Your task to perform on an android device: install app "Paramount+ | Peak Streaming" Image 0: 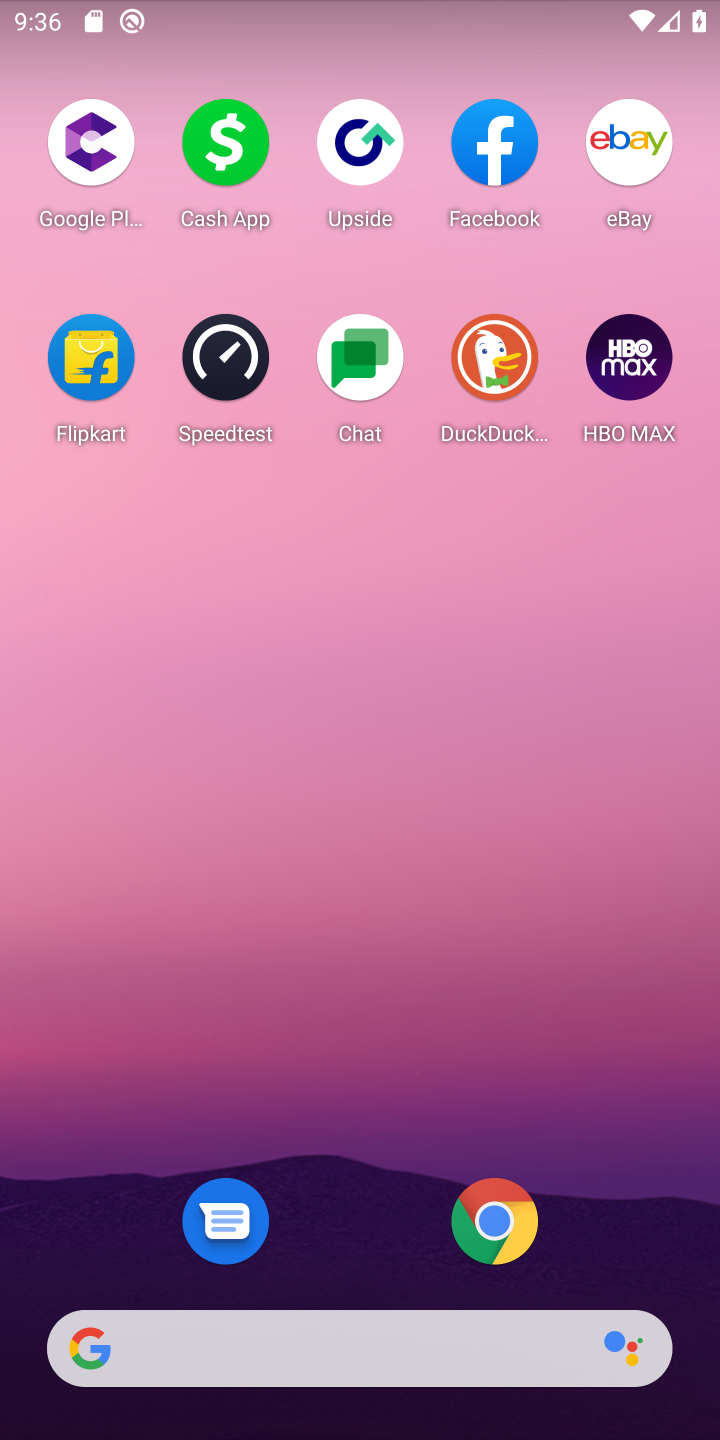
Step 0: drag from (368, 1139) to (364, 314)
Your task to perform on an android device: install app "Paramount+ | Peak Streaming" Image 1: 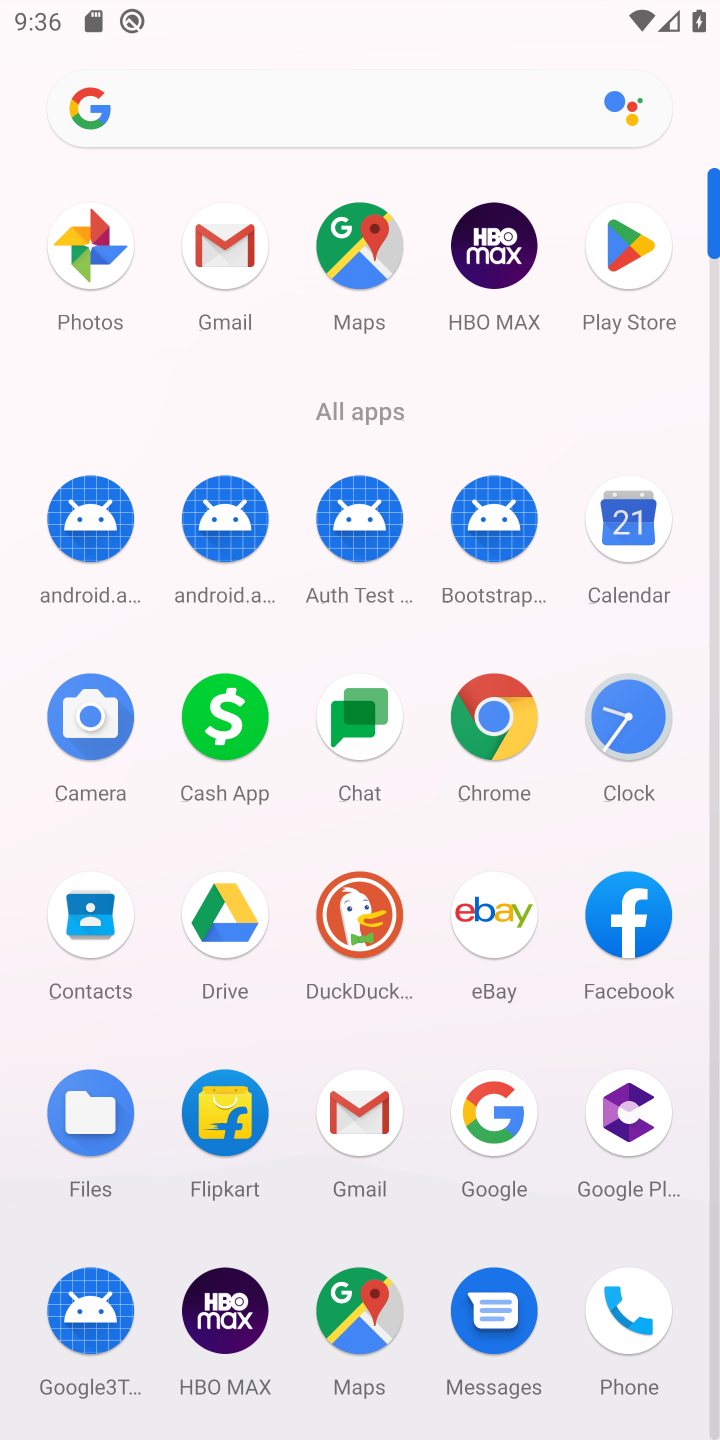
Step 1: click (611, 273)
Your task to perform on an android device: install app "Paramount+ | Peak Streaming" Image 2: 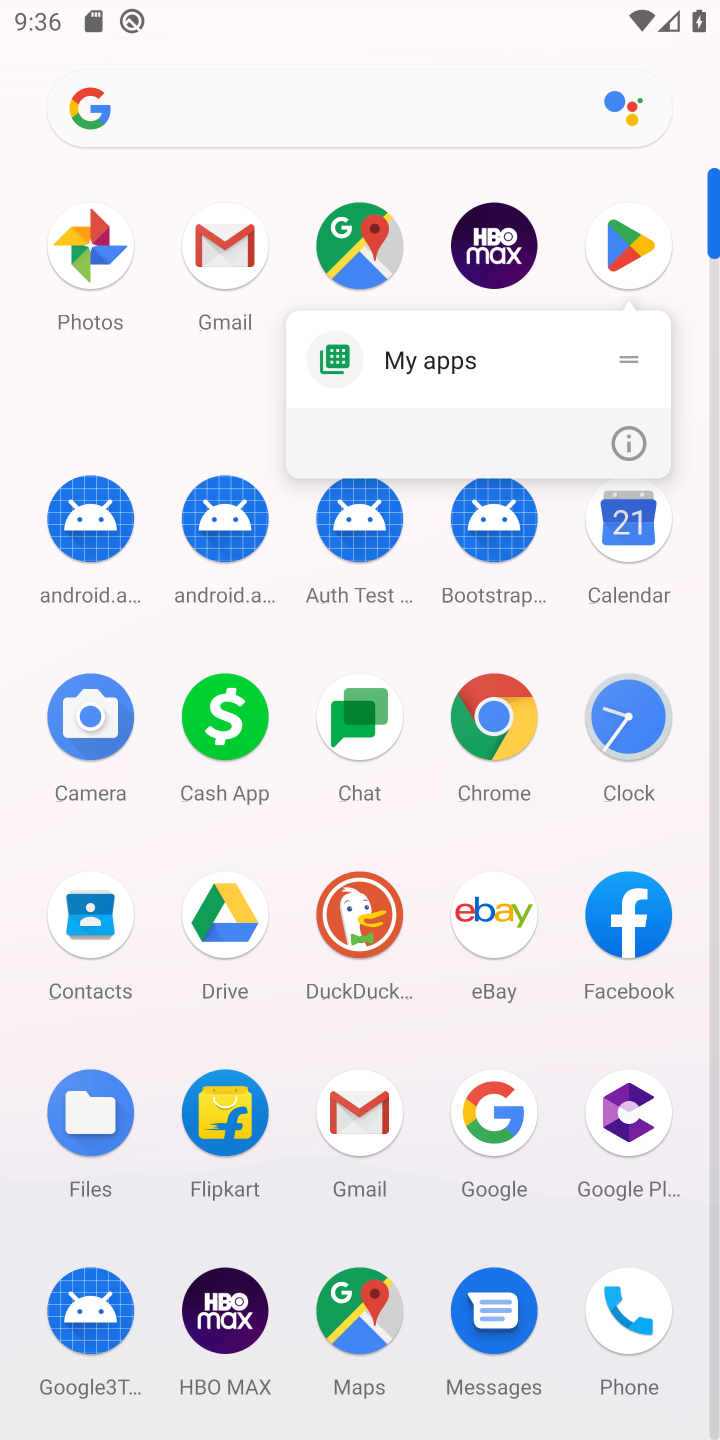
Step 2: click (596, 232)
Your task to perform on an android device: install app "Paramount+ | Peak Streaming" Image 3: 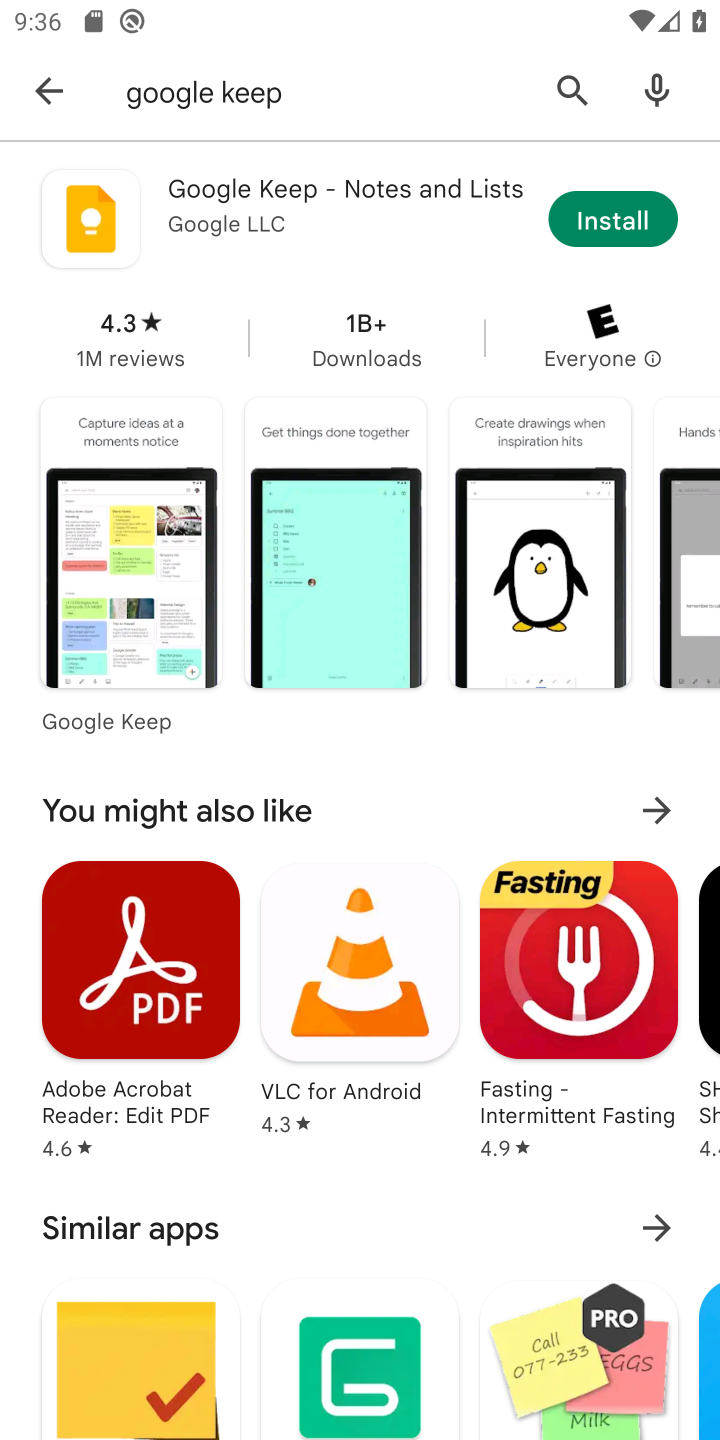
Step 3: click (585, 89)
Your task to perform on an android device: install app "Paramount+ | Peak Streaming" Image 4: 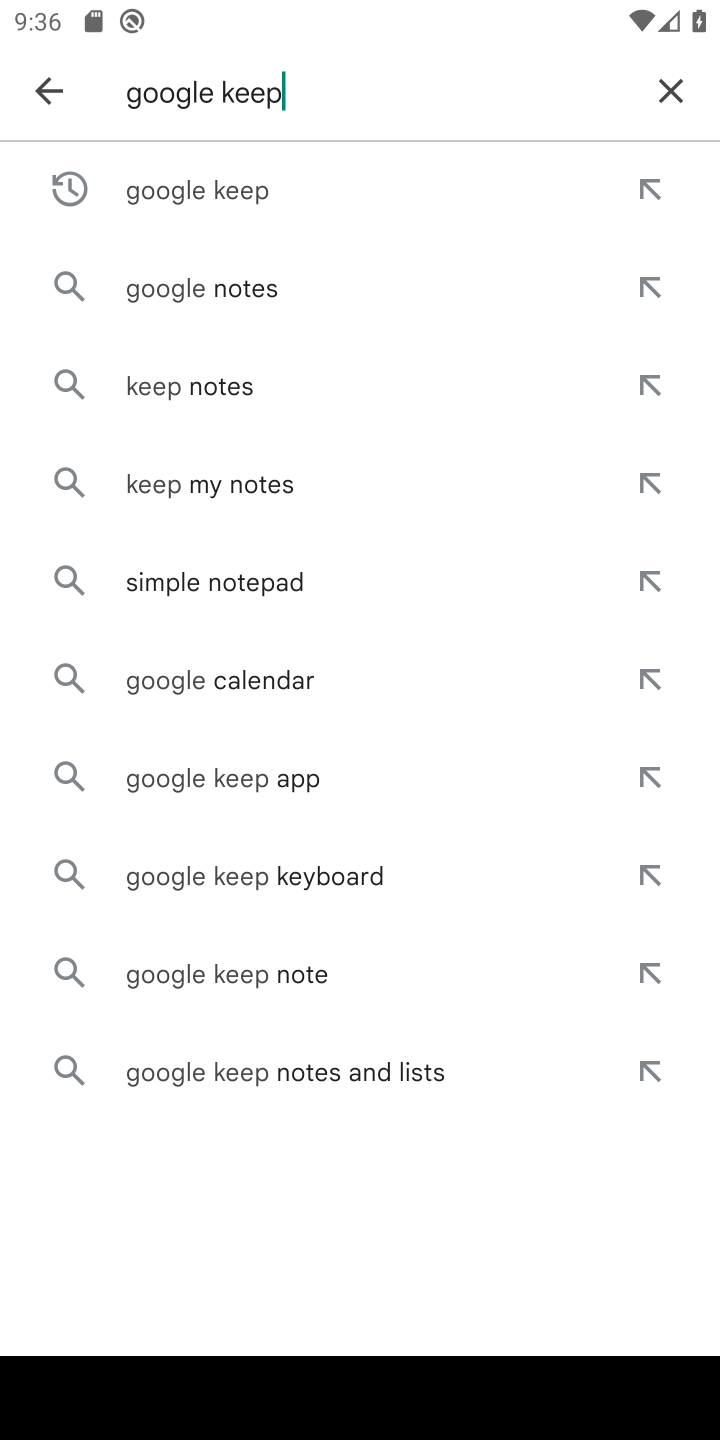
Step 4: click (675, 91)
Your task to perform on an android device: install app "Paramount+ | Peak Streaming" Image 5: 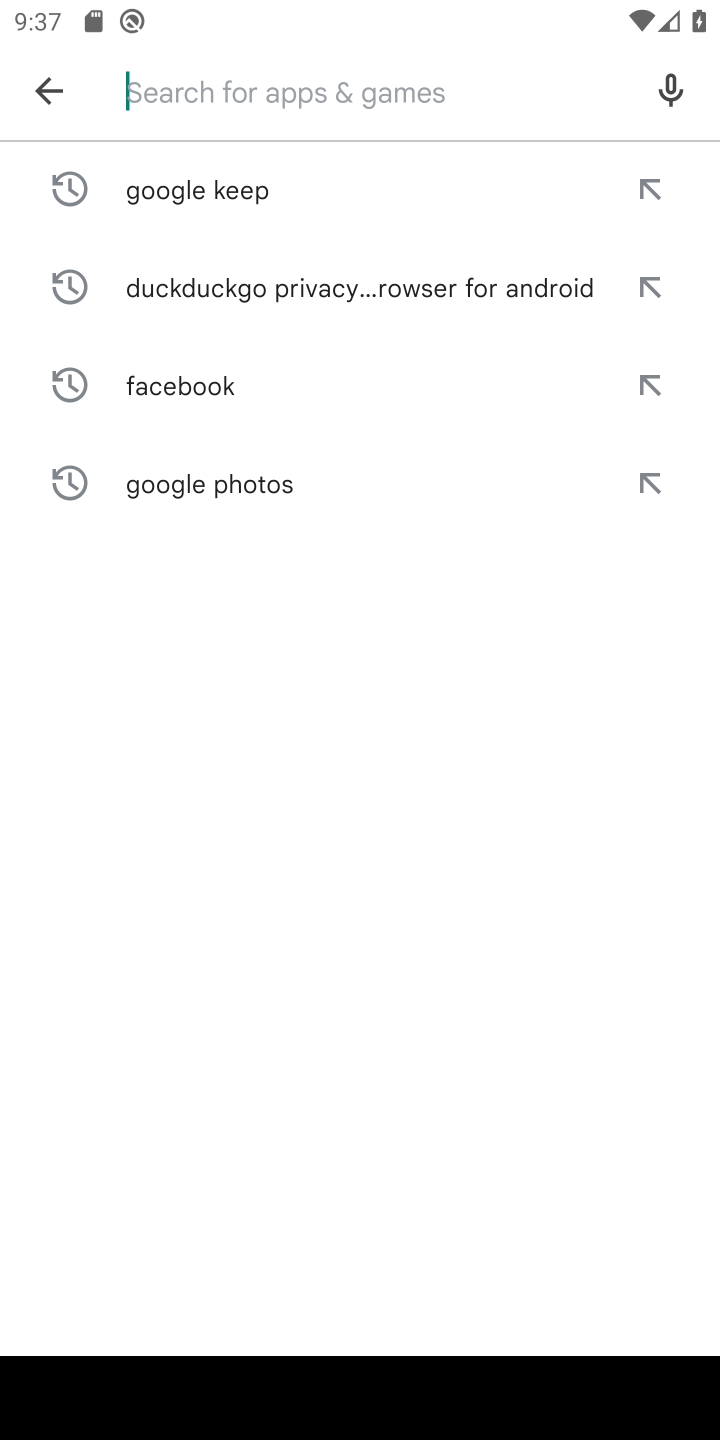
Step 5: type "Paramount+ | Peak Streaming"
Your task to perform on an android device: install app "Paramount+ | Peak Streaming" Image 6: 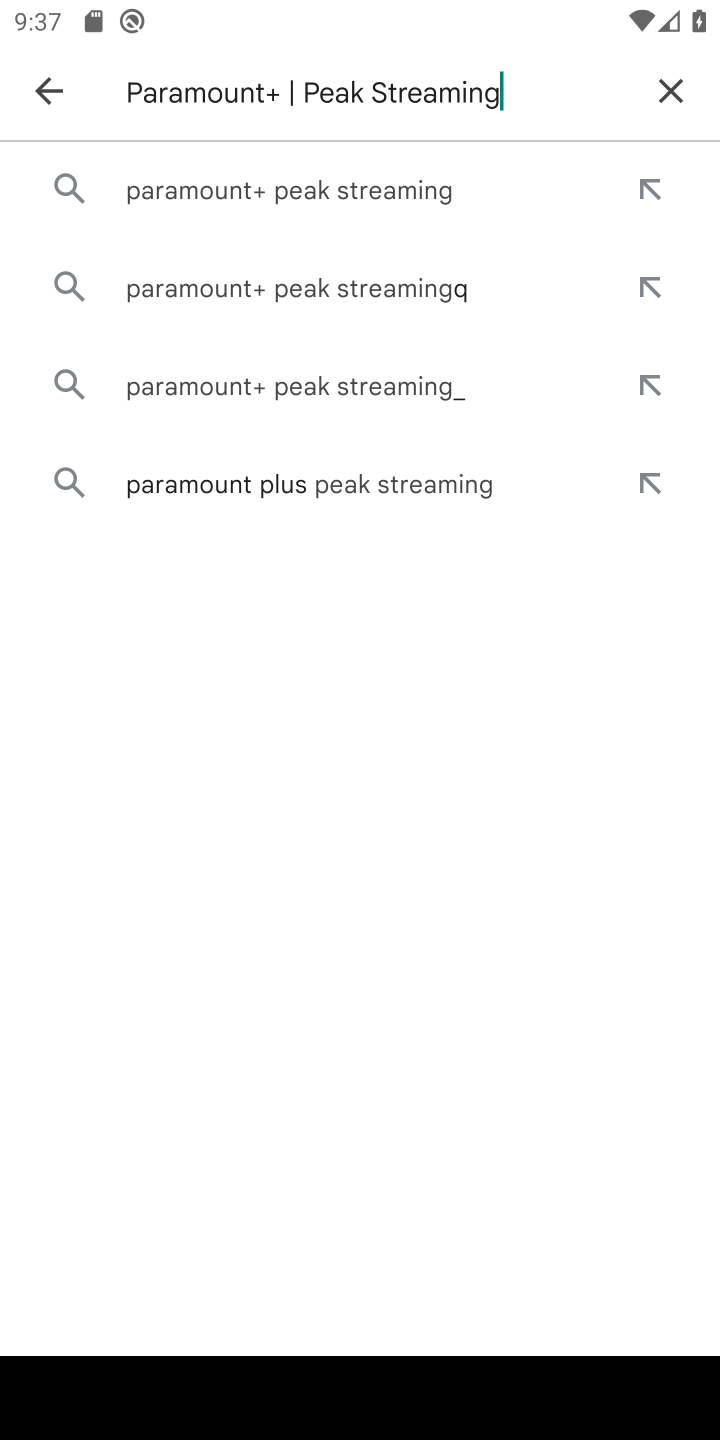
Step 6: click (410, 203)
Your task to perform on an android device: install app "Paramount+ | Peak Streaming" Image 7: 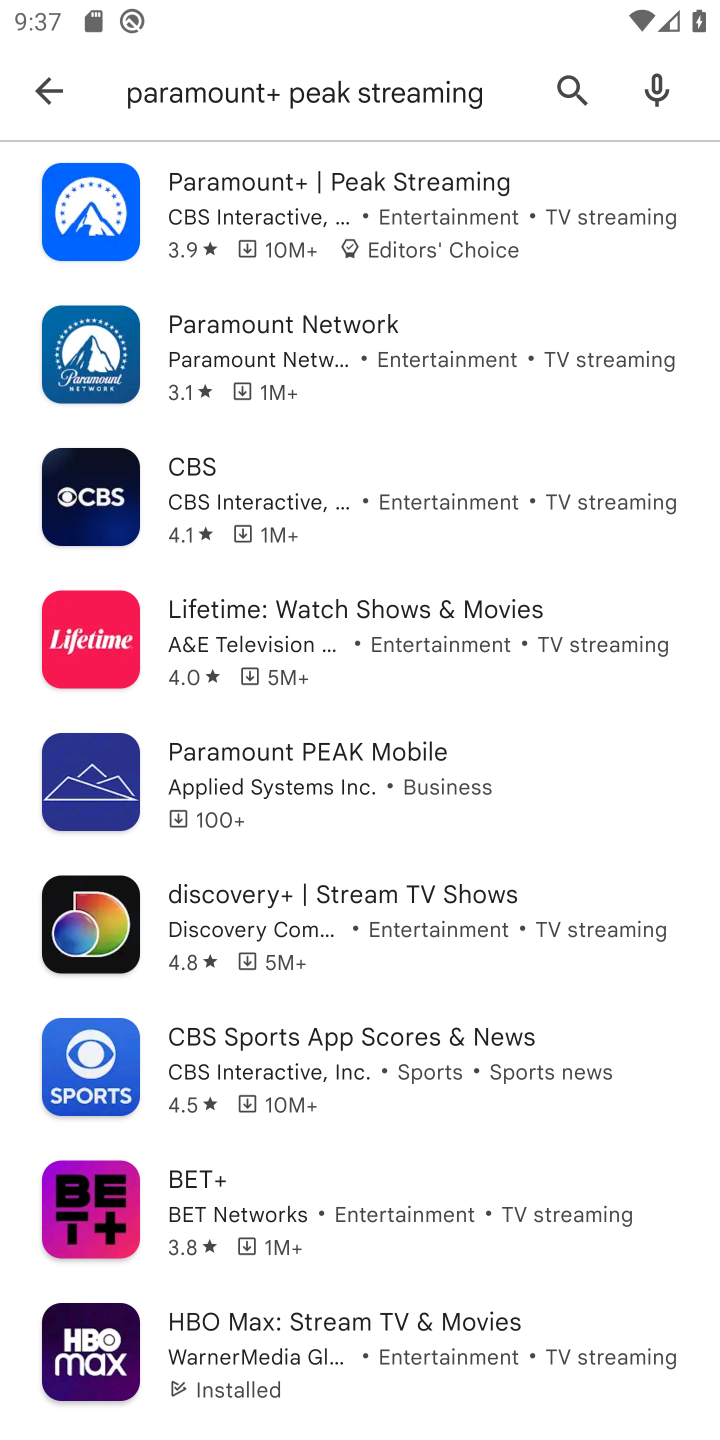
Step 7: click (410, 203)
Your task to perform on an android device: install app "Paramount+ | Peak Streaming" Image 8: 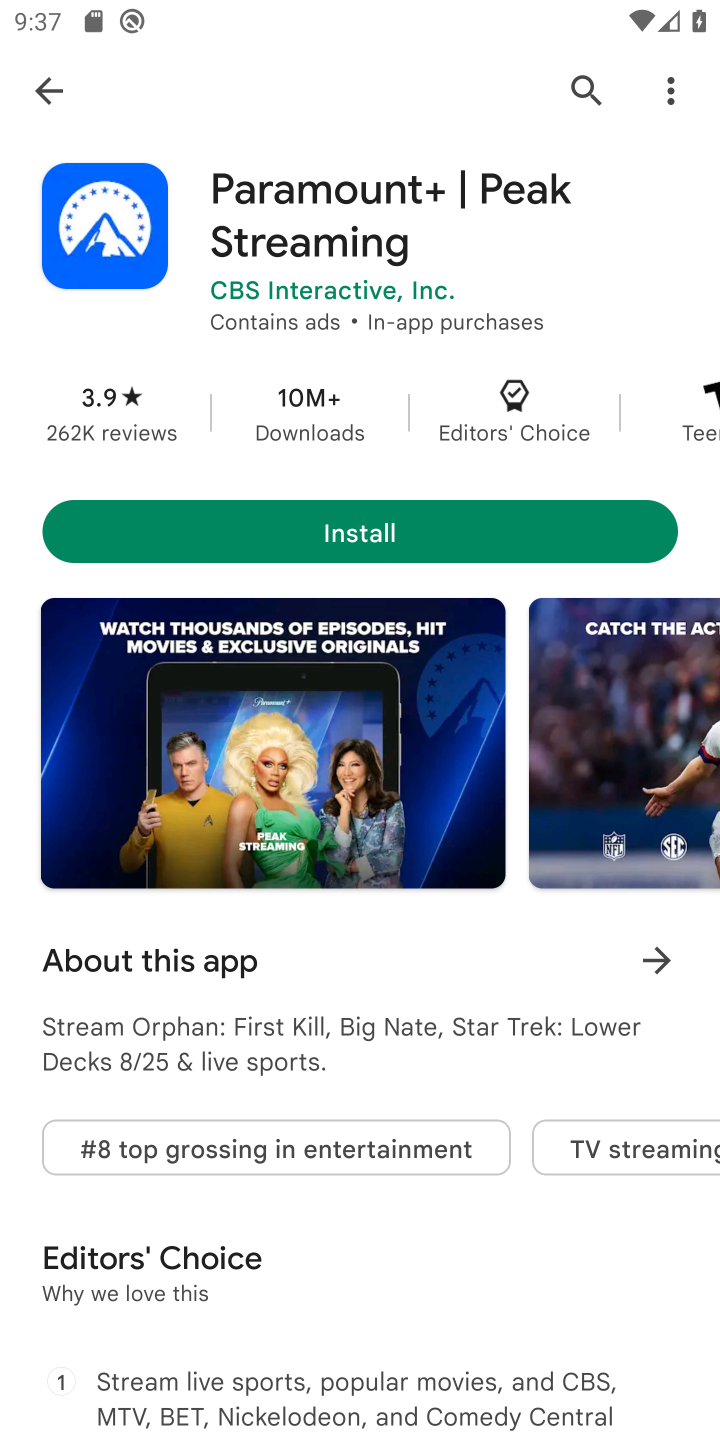
Step 8: click (439, 509)
Your task to perform on an android device: install app "Paramount+ | Peak Streaming" Image 9: 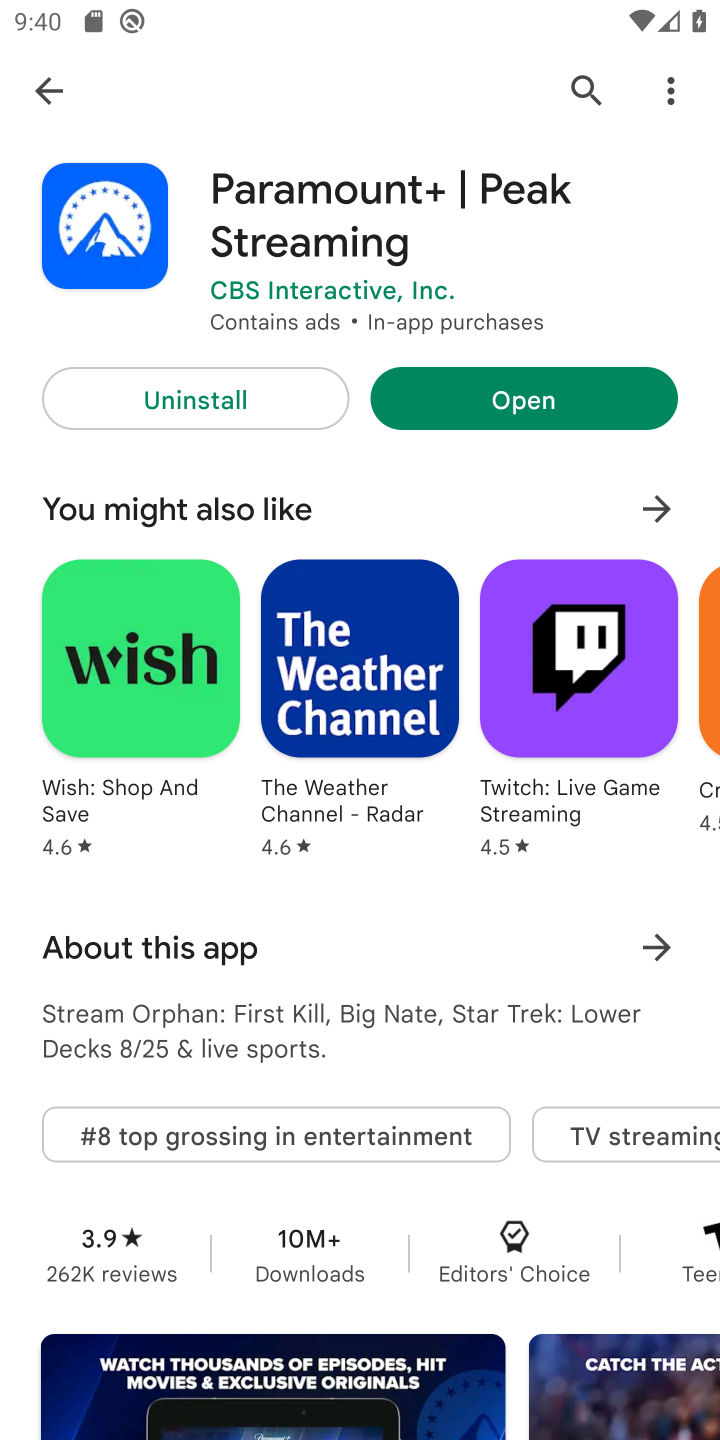
Step 9: click (497, 410)
Your task to perform on an android device: install app "Paramount+ | Peak Streaming" Image 10: 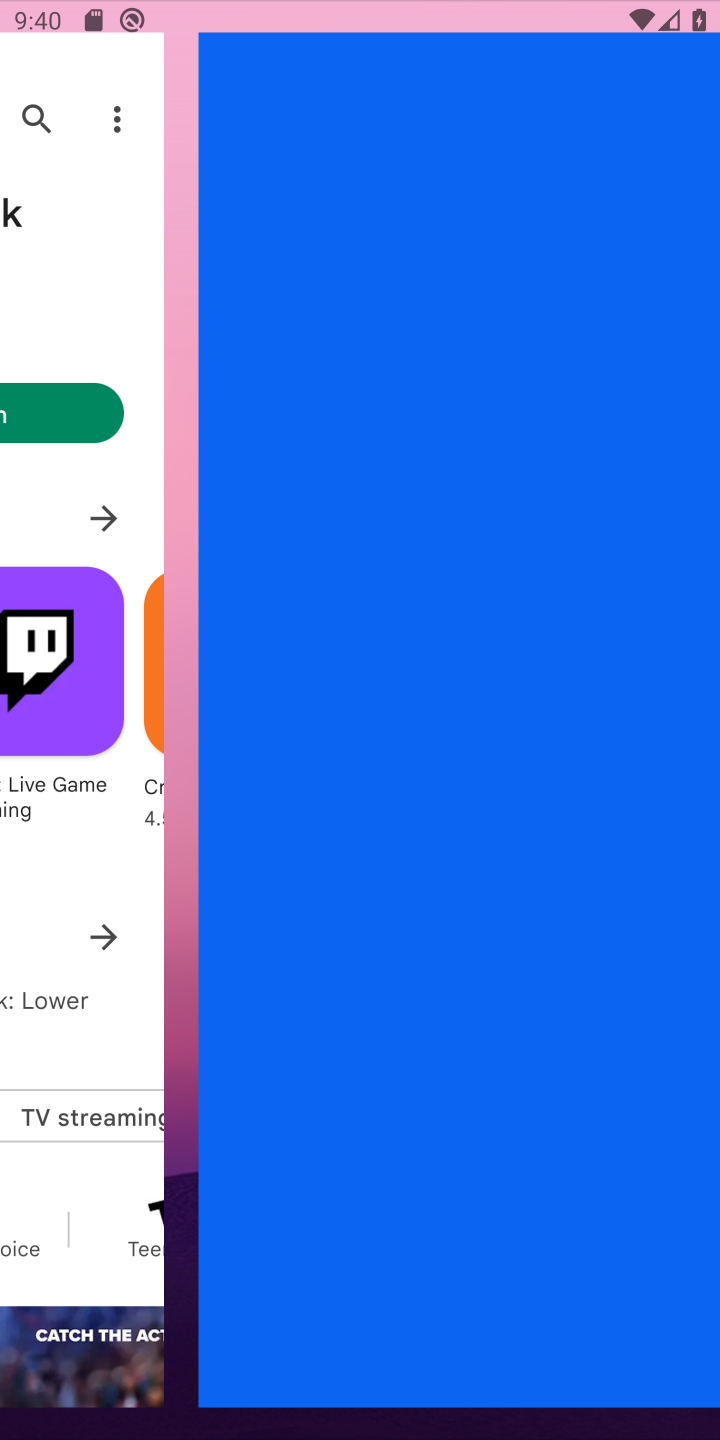
Step 10: task complete